Your task to perform on an android device: install app "Firefox Browser" Image 0: 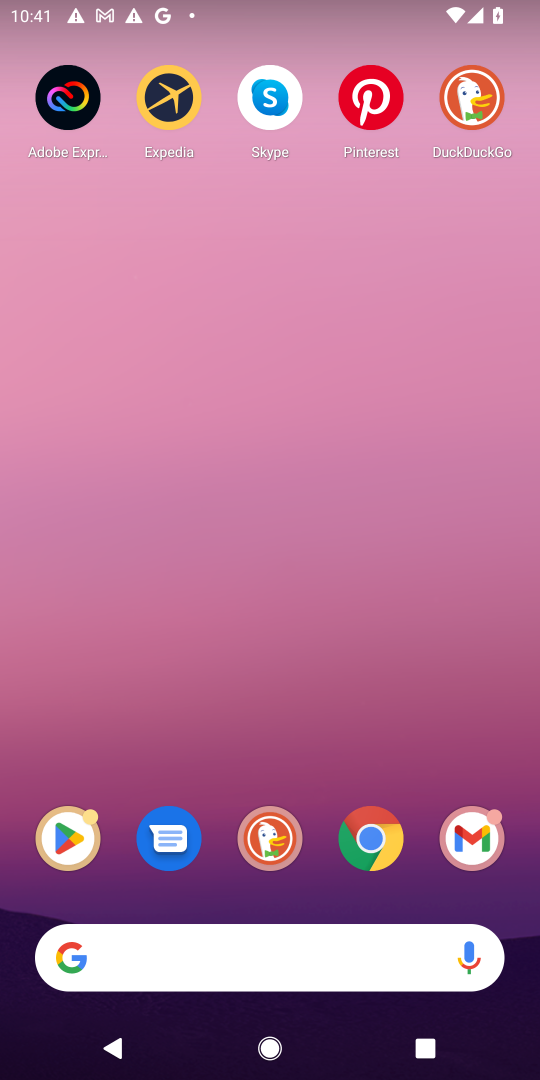
Step 0: press home button
Your task to perform on an android device: install app "Firefox Browser" Image 1: 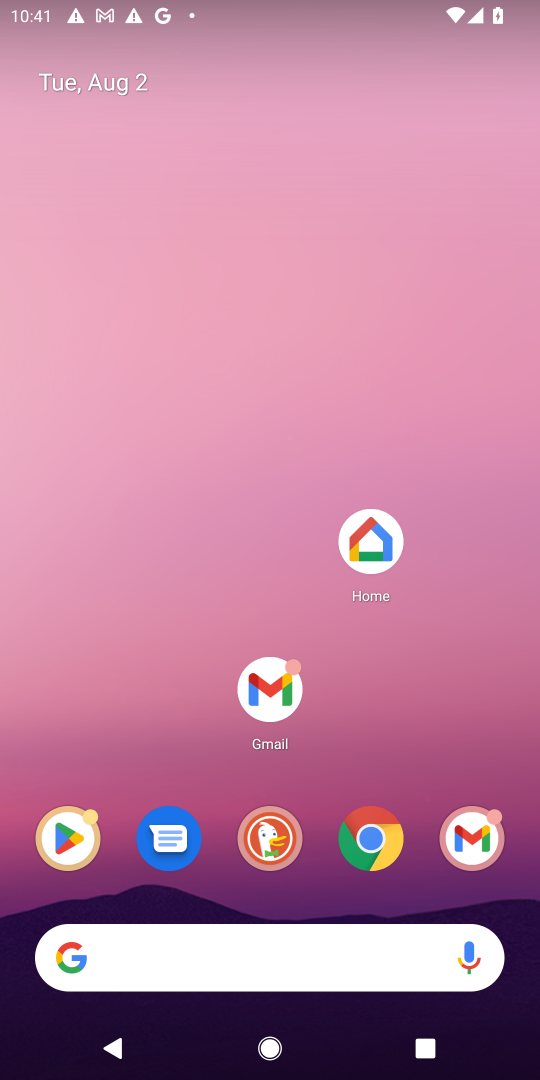
Step 1: drag from (175, 754) to (205, 139)
Your task to perform on an android device: install app "Firefox Browser" Image 2: 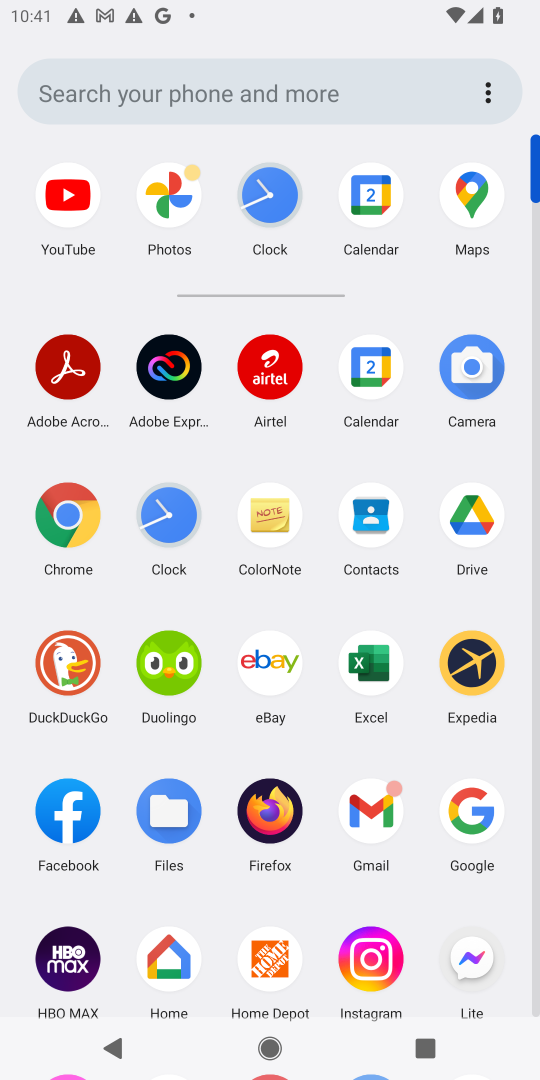
Step 2: drag from (202, 895) to (216, 624)
Your task to perform on an android device: install app "Firefox Browser" Image 3: 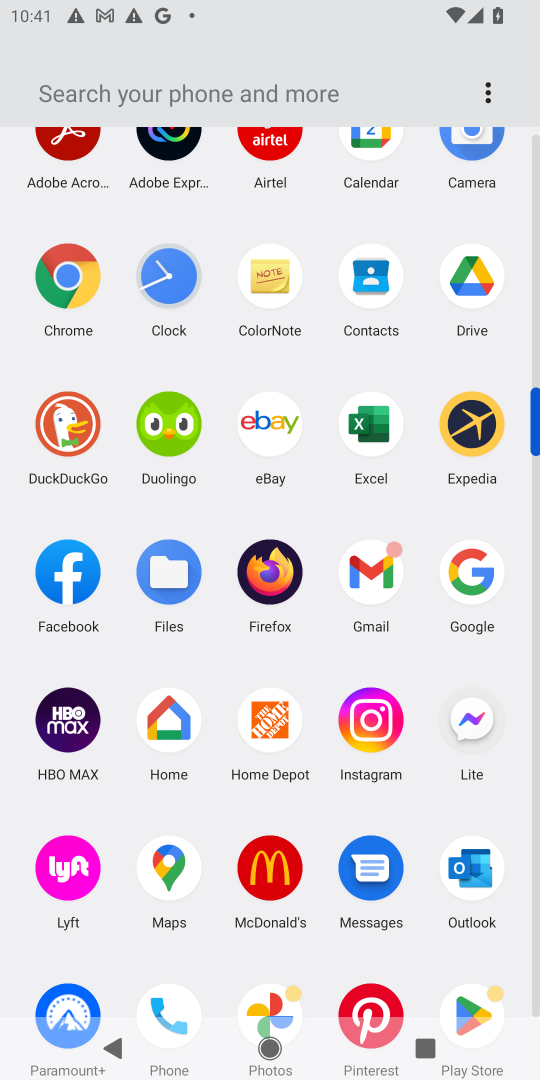
Step 3: drag from (206, 952) to (212, 720)
Your task to perform on an android device: install app "Firefox Browser" Image 4: 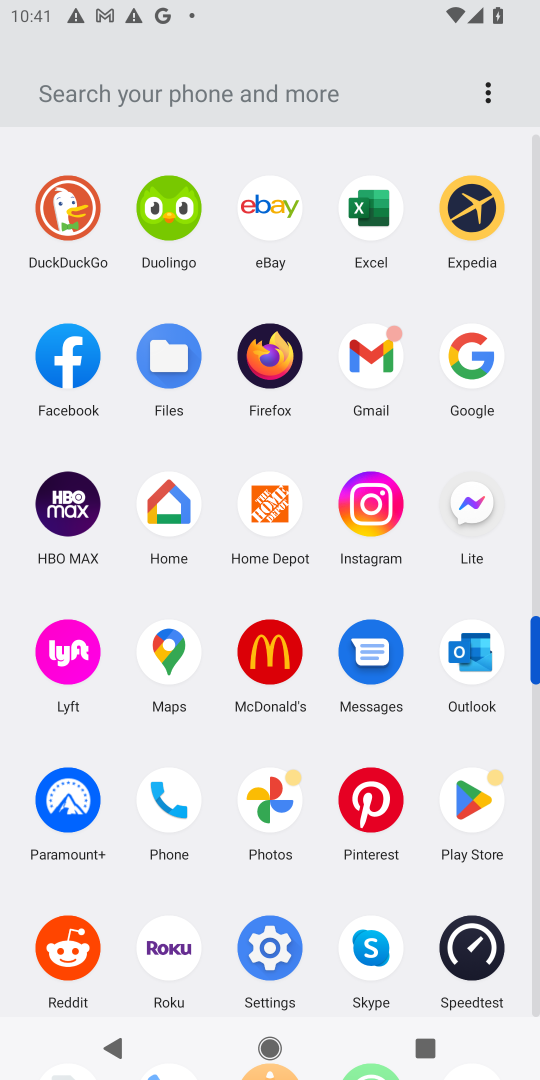
Step 4: click (469, 804)
Your task to perform on an android device: install app "Firefox Browser" Image 5: 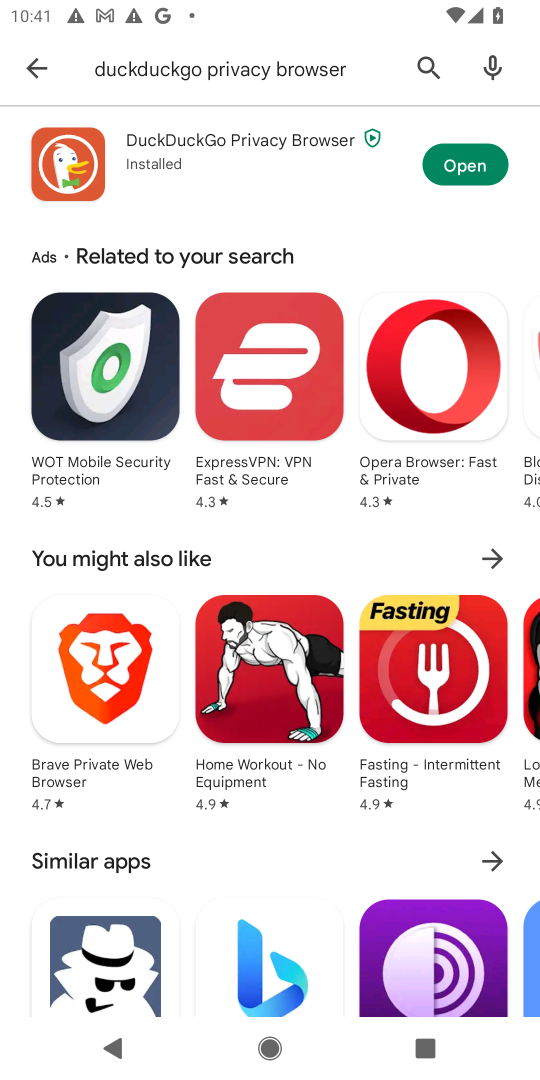
Step 5: click (420, 71)
Your task to perform on an android device: install app "Firefox Browser" Image 6: 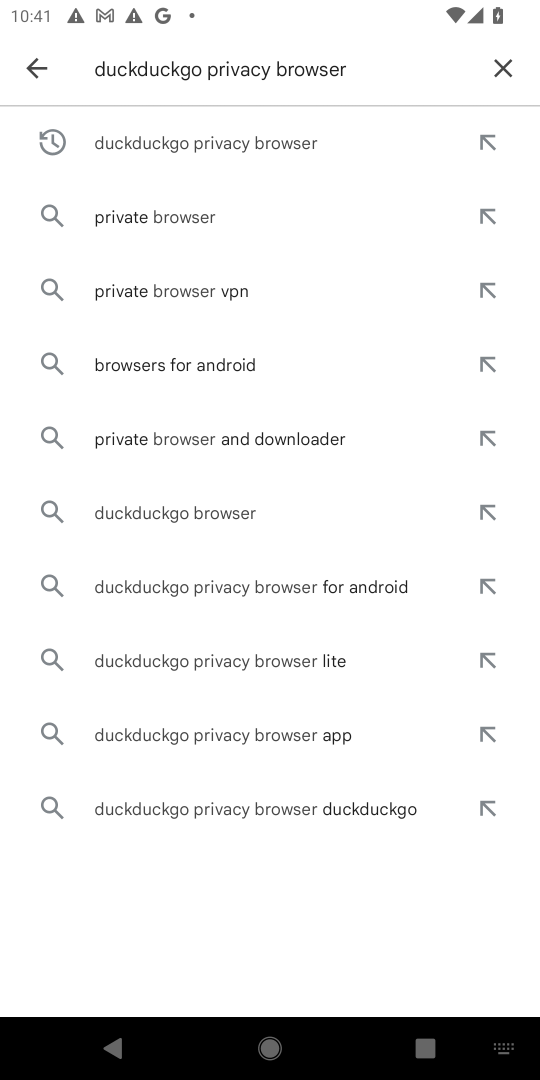
Step 6: click (500, 60)
Your task to perform on an android device: install app "Firefox Browser" Image 7: 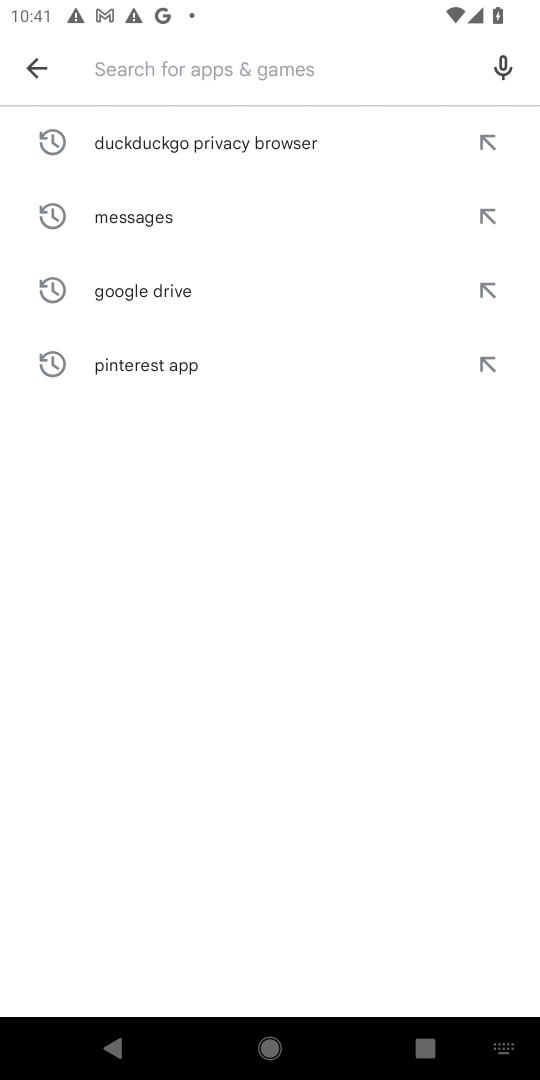
Step 7: click (330, 88)
Your task to perform on an android device: install app "Firefox Browser" Image 8: 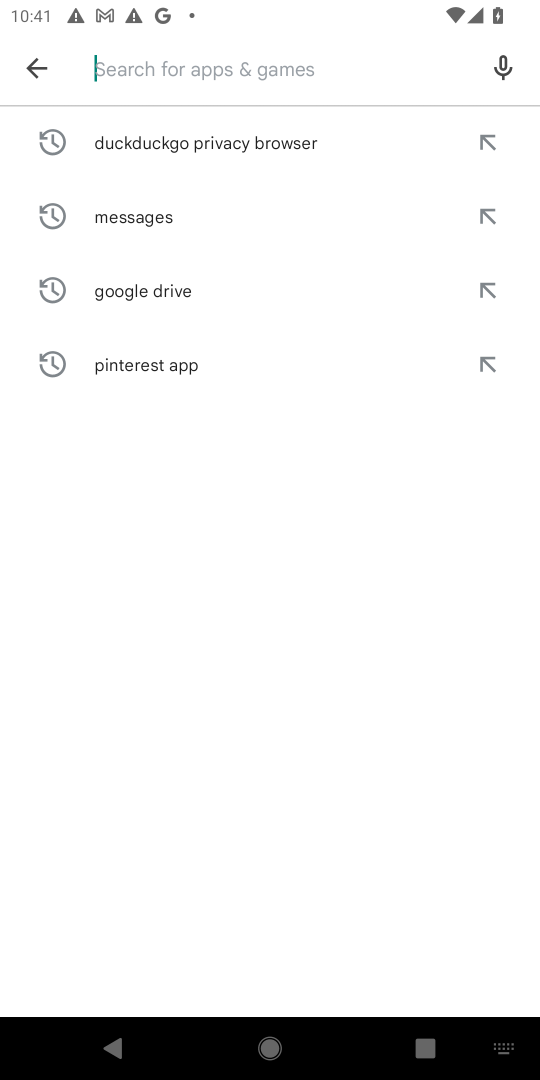
Step 8: type "firefox browser"
Your task to perform on an android device: install app "Firefox Browser" Image 9: 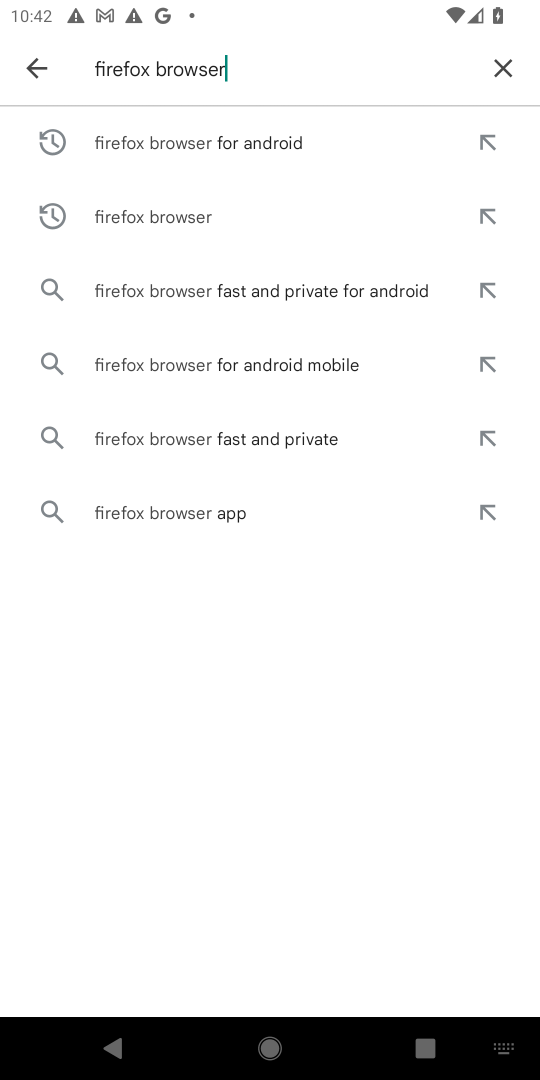
Step 9: click (231, 222)
Your task to perform on an android device: install app "Firefox Browser" Image 10: 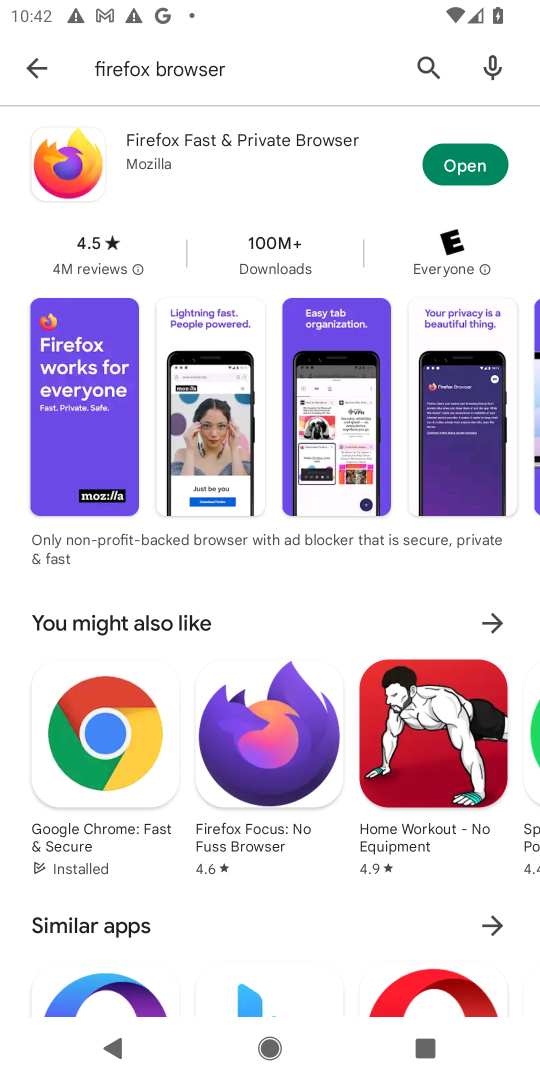
Step 10: task complete